Your task to perform on an android device: Open Google Chrome Image 0: 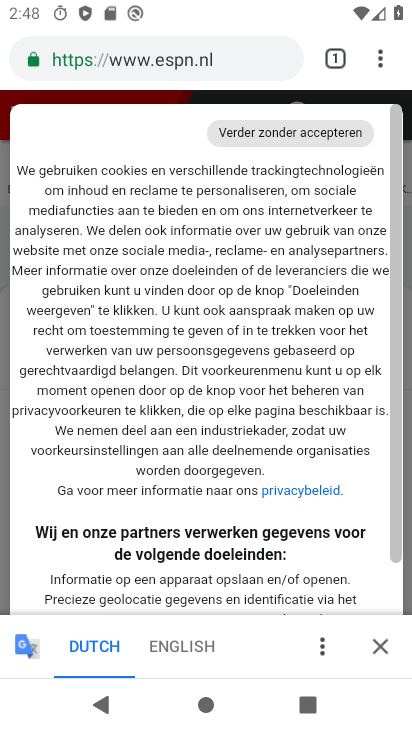
Step 0: drag from (219, 671) to (329, 181)
Your task to perform on an android device: Open Google Chrome Image 1: 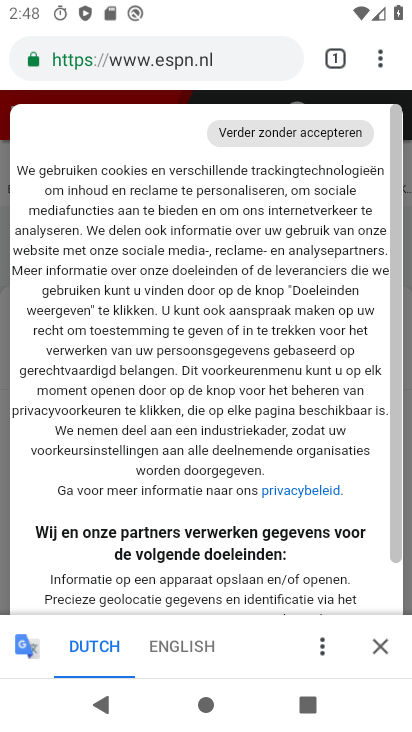
Step 1: press home button
Your task to perform on an android device: Open Google Chrome Image 2: 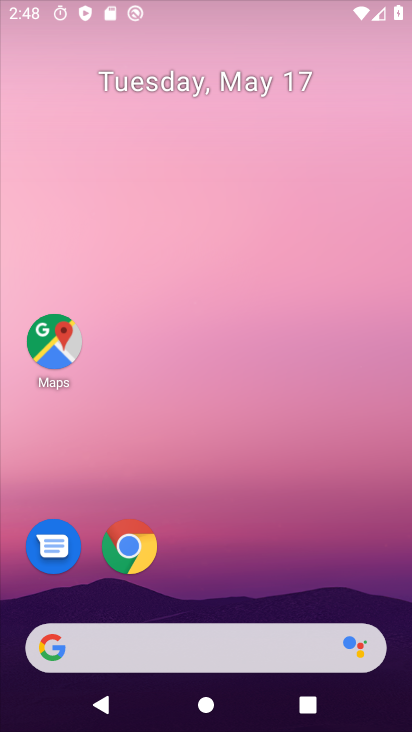
Step 2: drag from (190, 599) to (240, 51)
Your task to perform on an android device: Open Google Chrome Image 3: 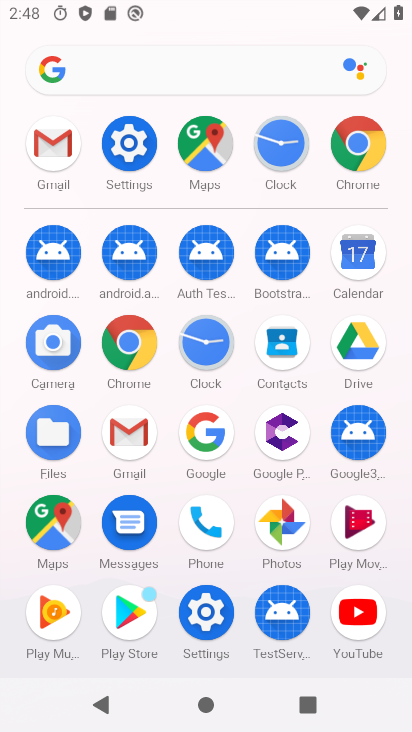
Step 3: click (350, 183)
Your task to perform on an android device: Open Google Chrome Image 4: 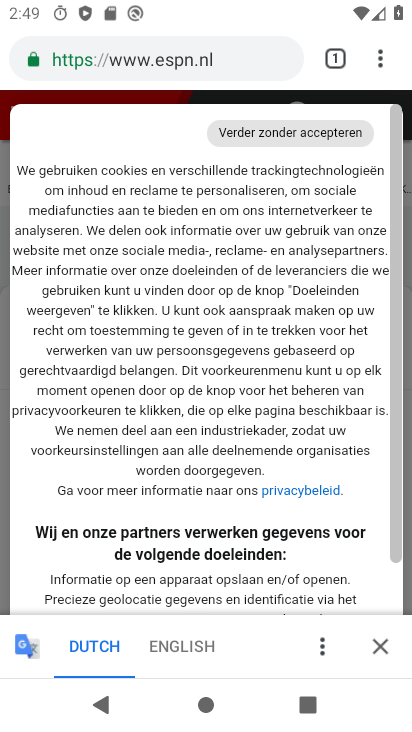
Step 4: task complete